Your task to perform on an android device: Do I have any events tomorrow? Image 0: 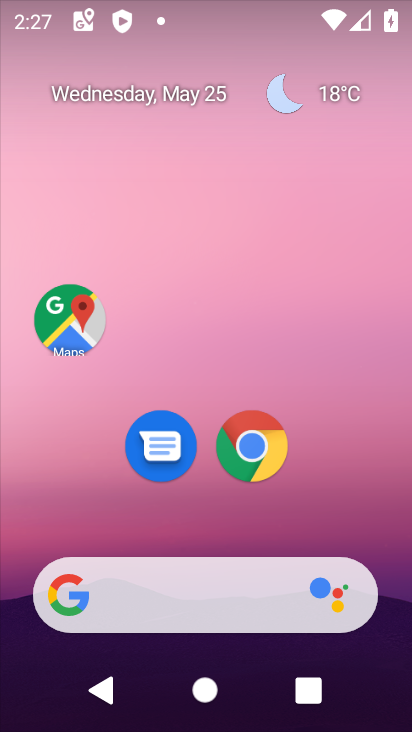
Step 0: drag from (172, 608) to (170, 311)
Your task to perform on an android device: Do I have any events tomorrow? Image 1: 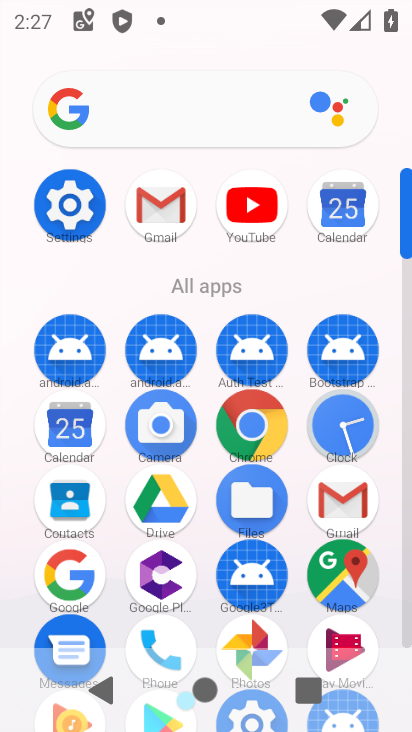
Step 1: click (80, 424)
Your task to perform on an android device: Do I have any events tomorrow? Image 2: 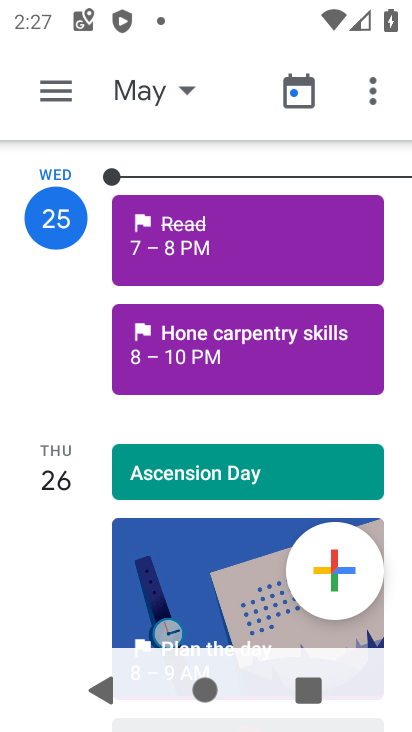
Step 2: click (53, 98)
Your task to perform on an android device: Do I have any events tomorrow? Image 3: 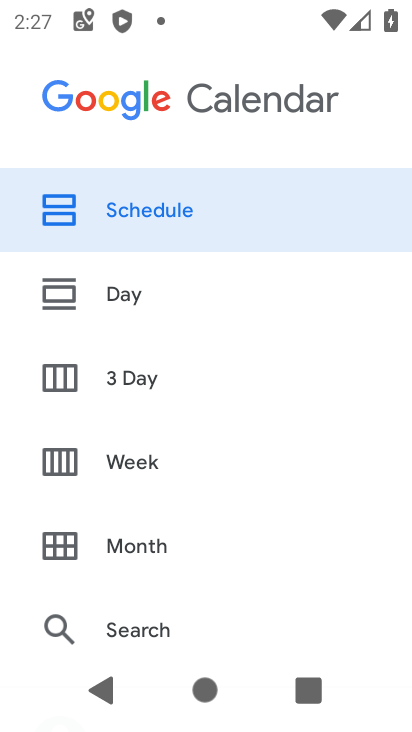
Step 3: click (88, 235)
Your task to perform on an android device: Do I have any events tomorrow? Image 4: 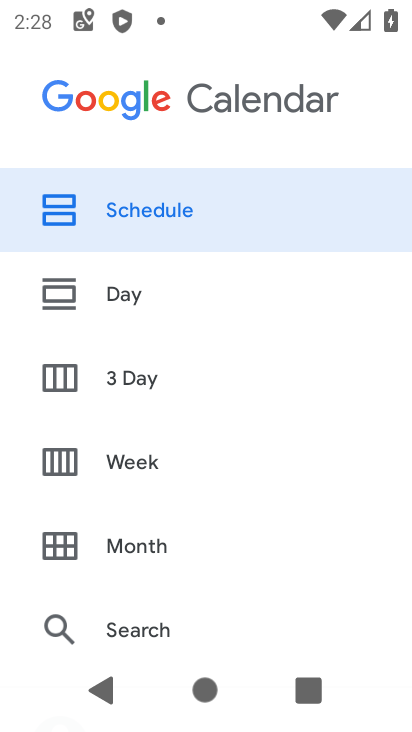
Step 4: click (137, 218)
Your task to perform on an android device: Do I have any events tomorrow? Image 5: 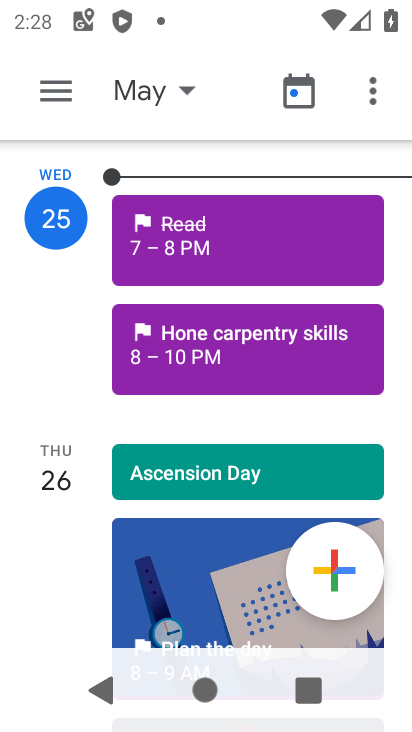
Step 5: task complete